Your task to perform on an android device: Open Google Chrome and open the bookmarks view Image 0: 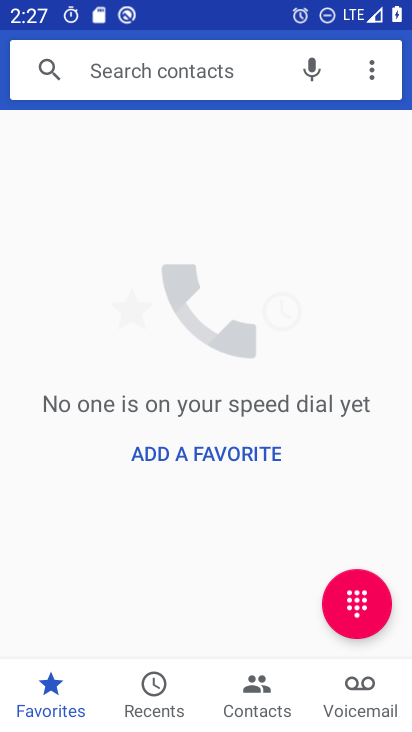
Step 0: press home button
Your task to perform on an android device: Open Google Chrome and open the bookmarks view Image 1: 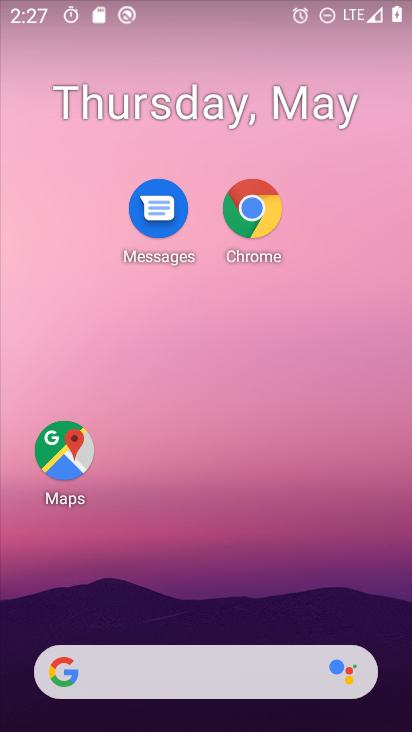
Step 1: click (247, 231)
Your task to perform on an android device: Open Google Chrome and open the bookmarks view Image 2: 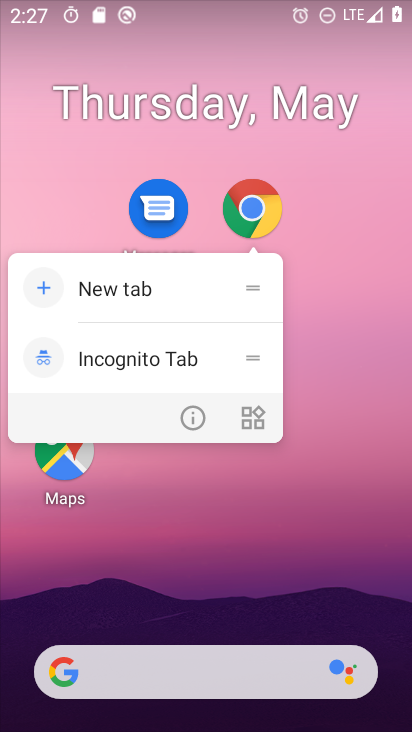
Step 2: click (254, 214)
Your task to perform on an android device: Open Google Chrome and open the bookmarks view Image 3: 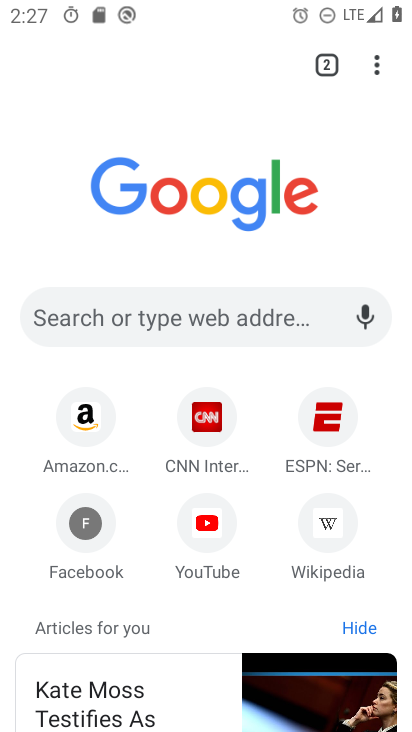
Step 3: click (372, 65)
Your task to perform on an android device: Open Google Chrome and open the bookmarks view Image 4: 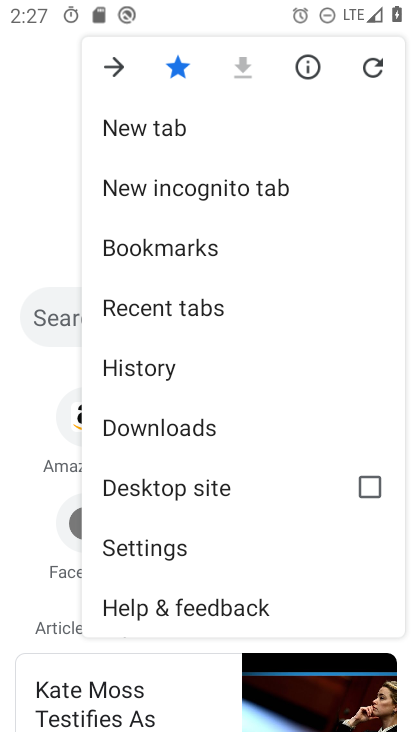
Step 4: click (155, 277)
Your task to perform on an android device: Open Google Chrome and open the bookmarks view Image 5: 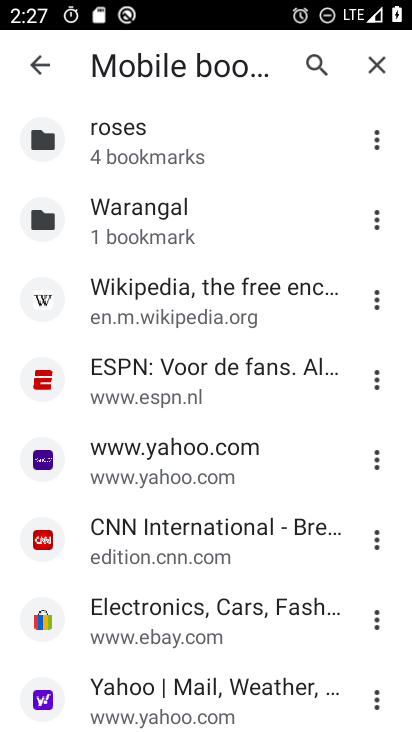
Step 5: task complete